Your task to perform on an android device: toggle wifi Image 0: 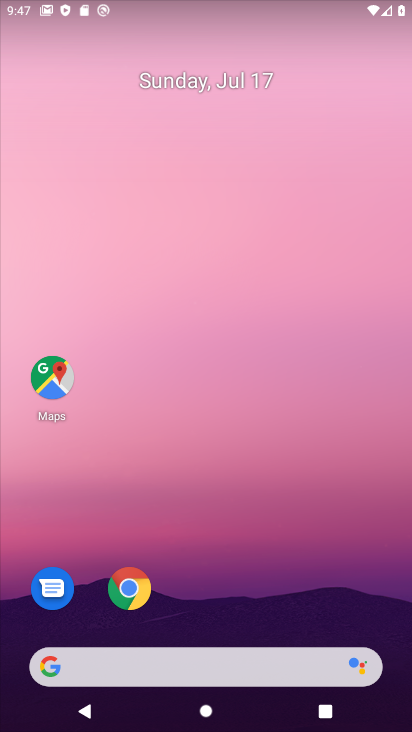
Step 0: drag from (239, 649) to (228, 372)
Your task to perform on an android device: toggle wifi Image 1: 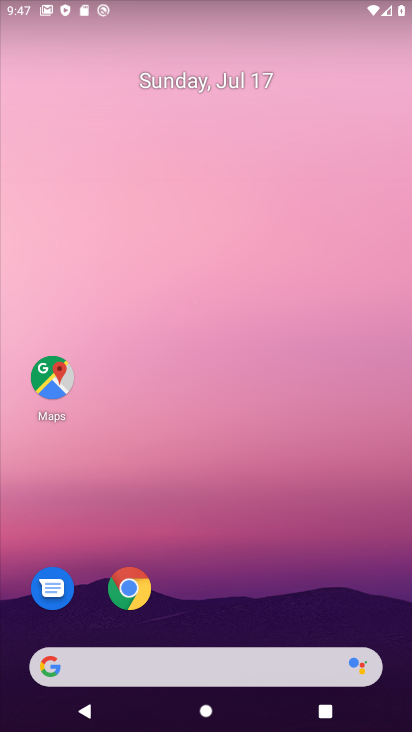
Step 1: drag from (197, 624) to (232, 109)
Your task to perform on an android device: toggle wifi Image 2: 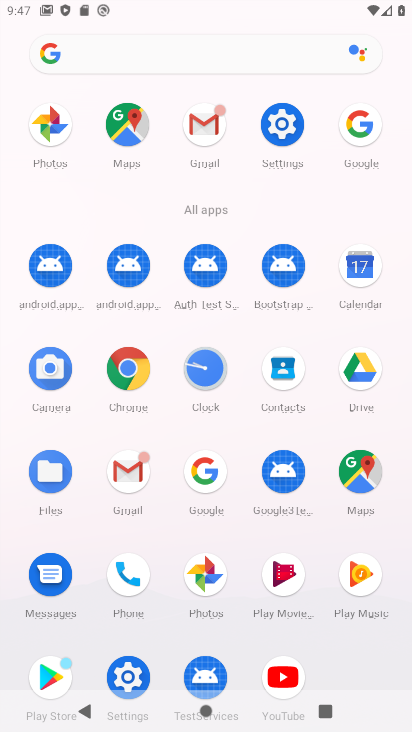
Step 2: click (132, 676)
Your task to perform on an android device: toggle wifi Image 3: 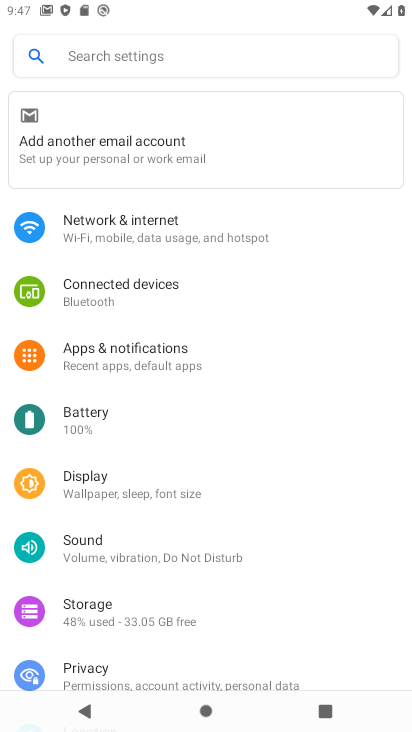
Step 3: click (183, 226)
Your task to perform on an android device: toggle wifi Image 4: 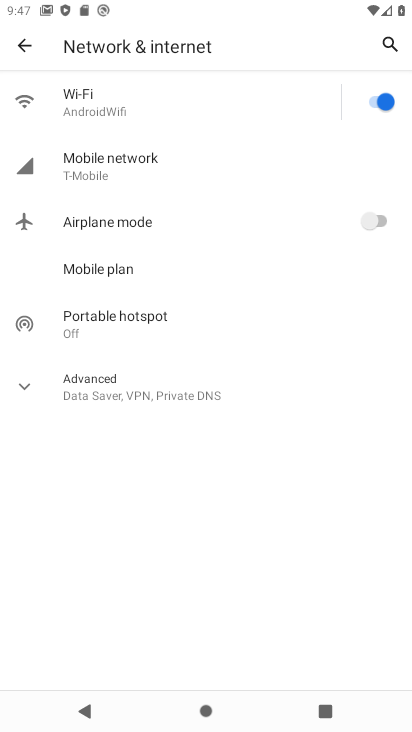
Step 4: click (381, 104)
Your task to perform on an android device: toggle wifi Image 5: 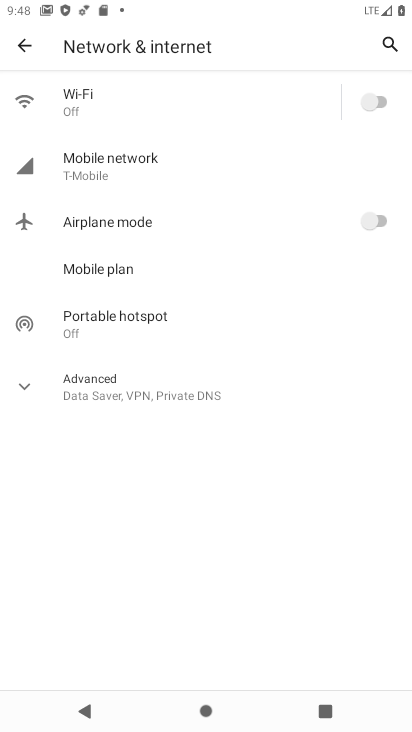
Step 5: task complete